Your task to perform on an android device: turn off airplane mode Image 0: 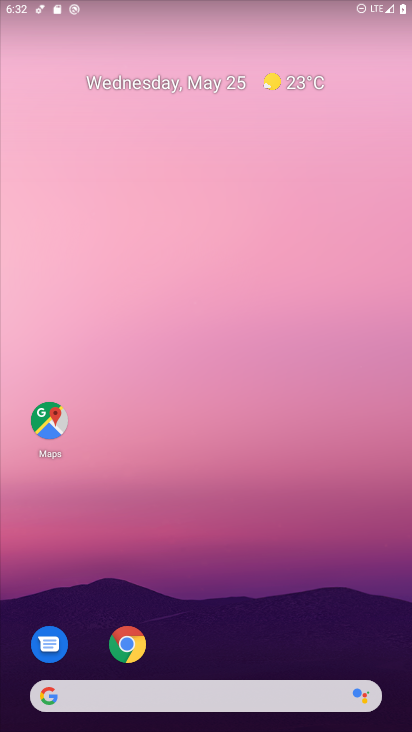
Step 0: drag from (356, 650) to (277, 95)
Your task to perform on an android device: turn off airplane mode Image 1: 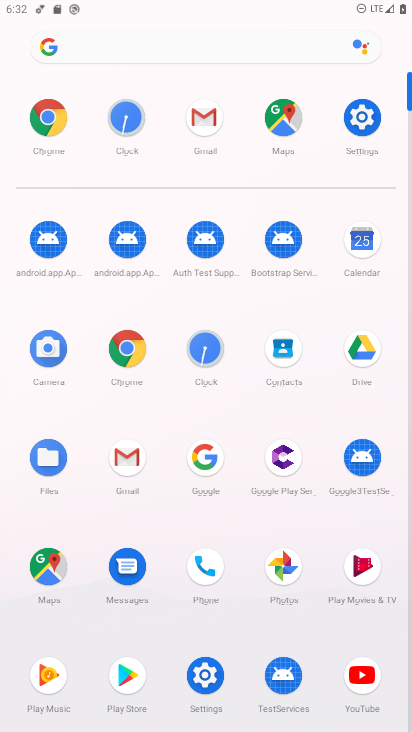
Step 1: task complete